Your task to perform on an android device: delete browsing data in the chrome app Image 0: 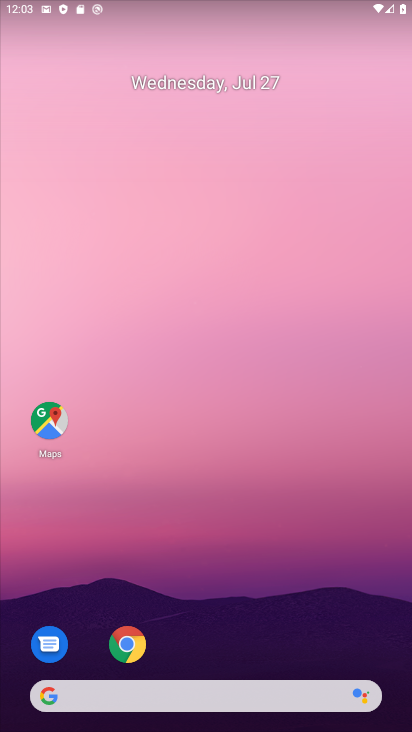
Step 0: drag from (269, 713) to (184, 155)
Your task to perform on an android device: delete browsing data in the chrome app Image 1: 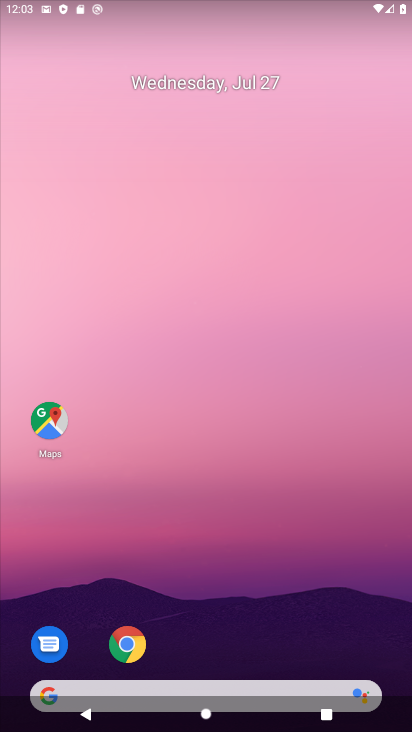
Step 1: drag from (182, 411) to (154, 122)
Your task to perform on an android device: delete browsing data in the chrome app Image 2: 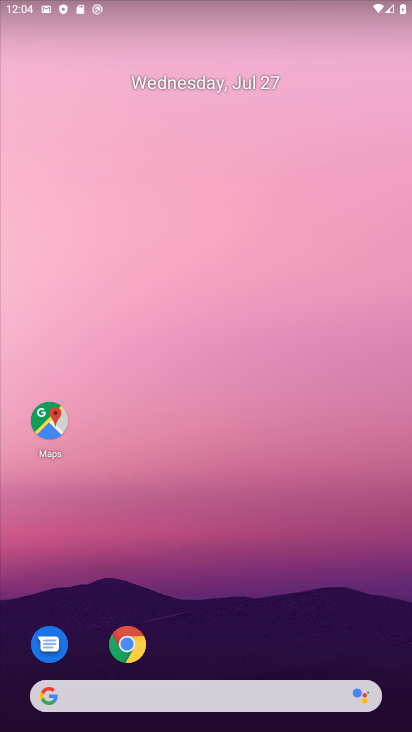
Step 2: drag from (339, 686) to (163, 186)
Your task to perform on an android device: delete browsing data in the chrome app Image 3: 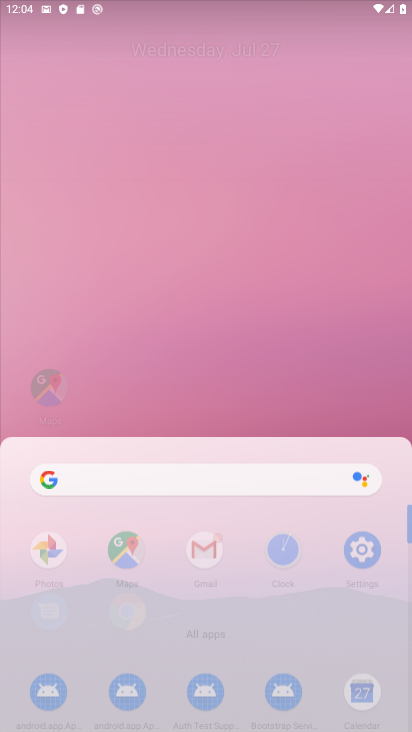
Step 3: drag from (223, 494) to (160, 70)
Your task to perform on an android device: delete browsing data in the chrome app Image 4: 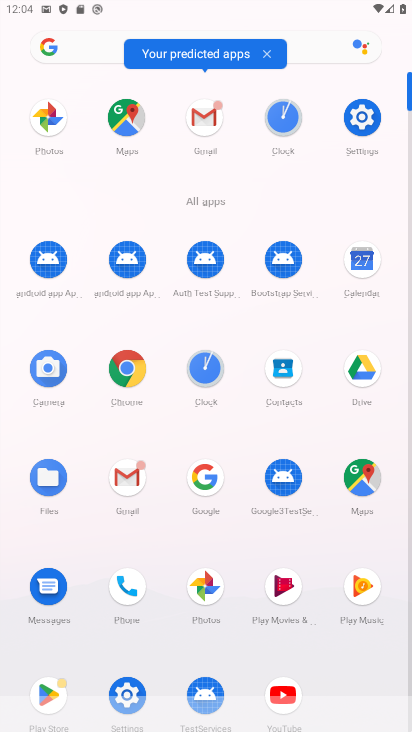
Step 4: click (127, 382)
Your task to perform on an android device: delete browsing data in the chrome app Image 5: 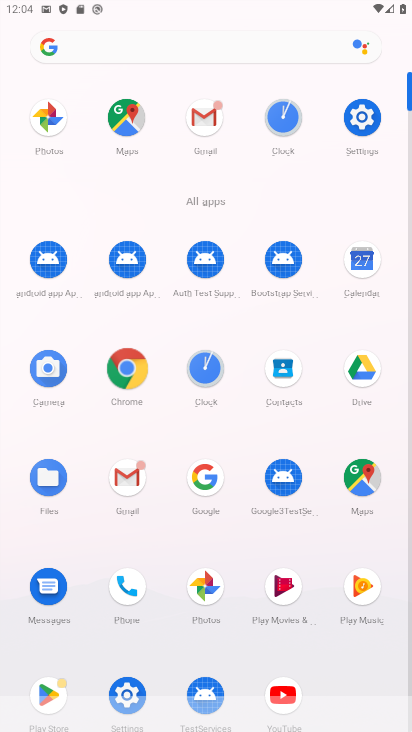
Step 5: click (125, 376)
Your task to perform on an android device: delete browsing data in the chrome app Image 6: 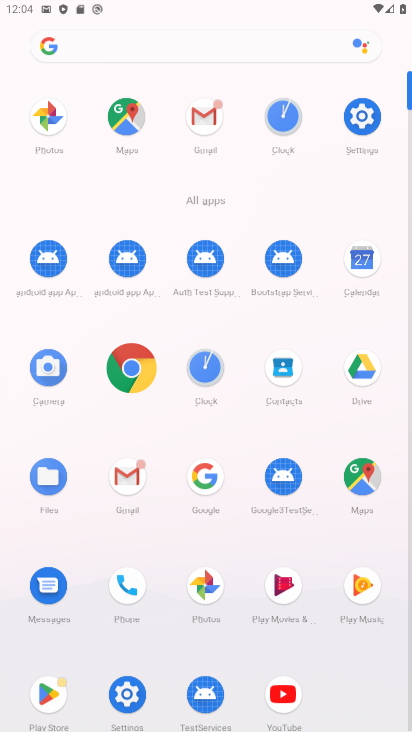
Step 6: click (124, 373)
Your task to perform on an android device: delete browsing data in the chrome app Image 7: 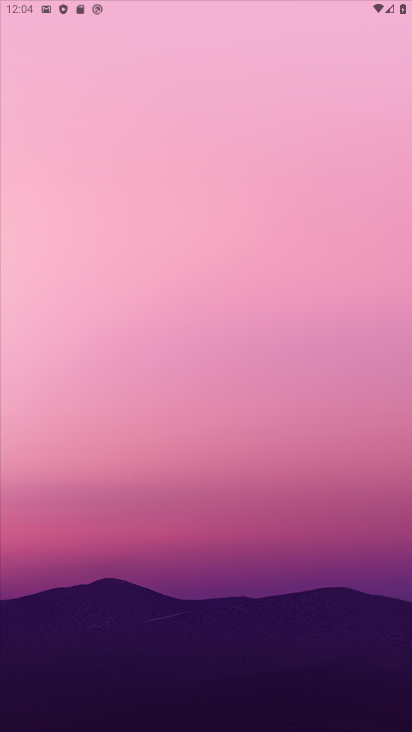
Step 7: click (128, 382)
Your task to perform on an android device: delete browsing data in the chrome app Image 8: 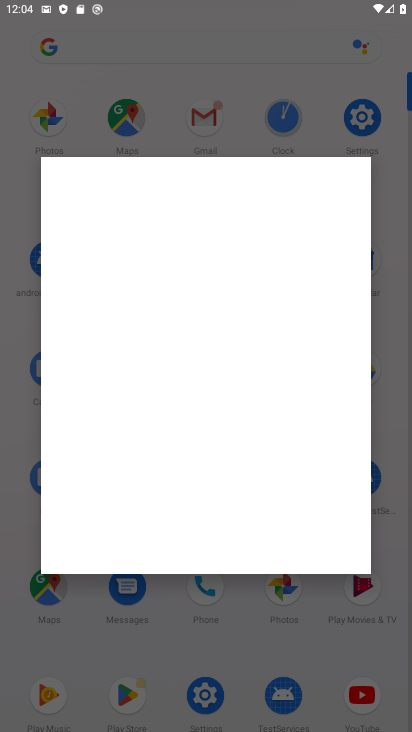
Step 8: drag from (196, 370) to (196, 156)
Your task to perform on an android device: delete browsing data in the chrome app Image 9: 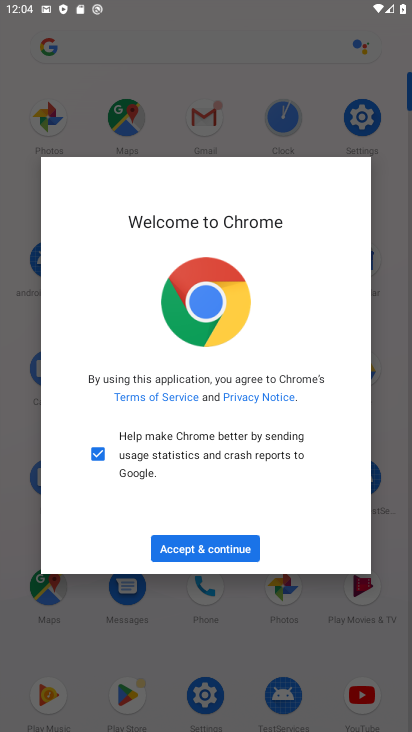
Step 9: click (208, 557)
Your task to perform on an android device: delete browsing data in the chrome app Image 10: 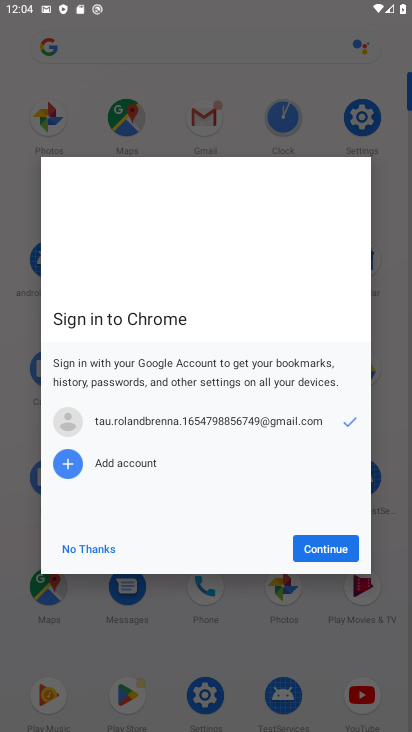
Step 10: click (209, 556)
Your task to perform on an android device: delete browsing data in the chrome app Image 11: 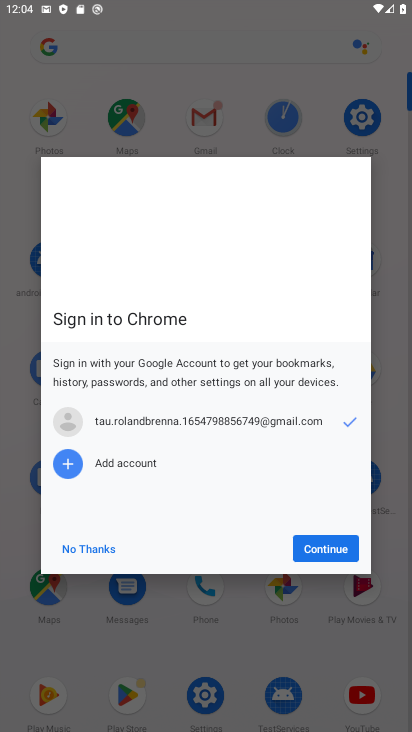
Step 11: click (229, 526)
Your task to perform on an android device: delete browsing data in the chrome app Image 12: 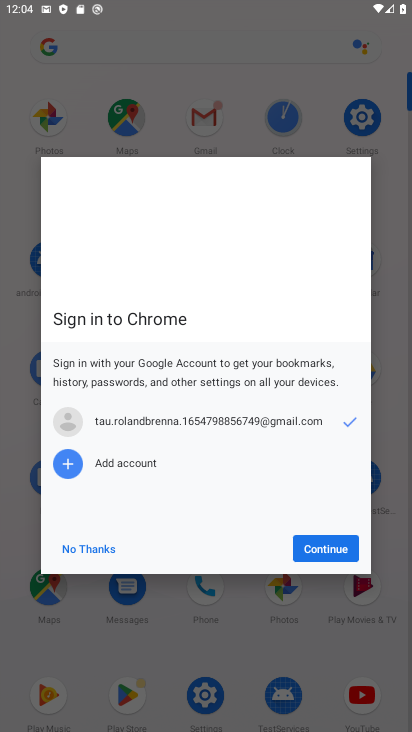
Step 12: click (82, 552)
Your task to perform on an android device: delete browsing data in the chrome app Image 13: 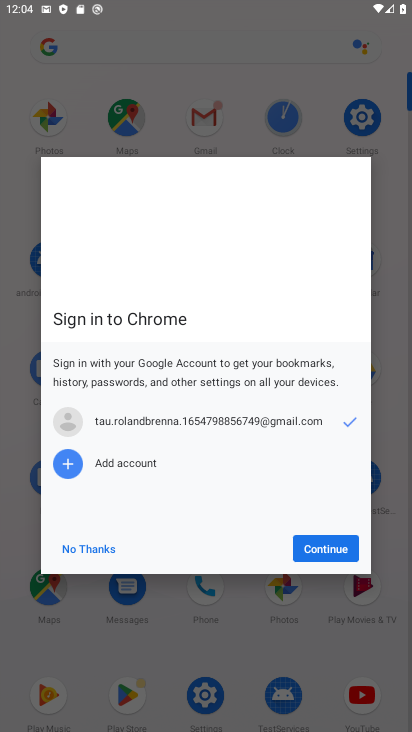
Step 13: click (83, 537)
Your task to perform on an android device: delete browsing data in the chrome app Image 14: 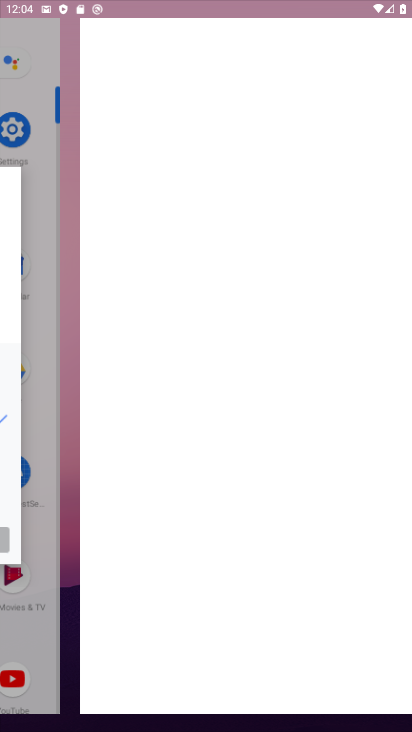
Step 14: click (78, 527)
Your task to perform on an android device: delete browsing data in the chrome app Image 15: 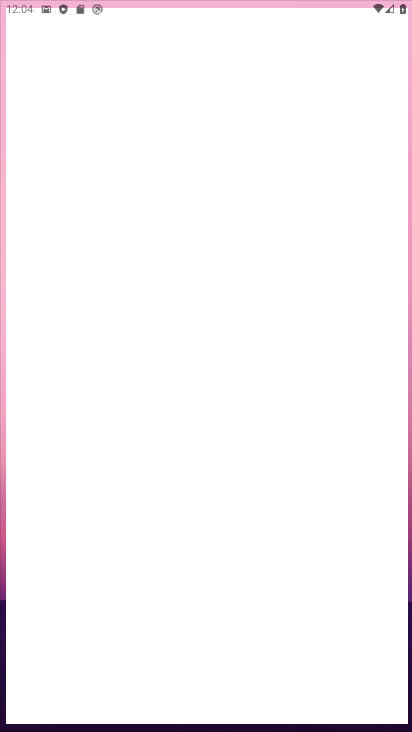
Step 15: click (78, 518)
Your task to perform on an android device: delete browsing data in the chrome app Image 16: 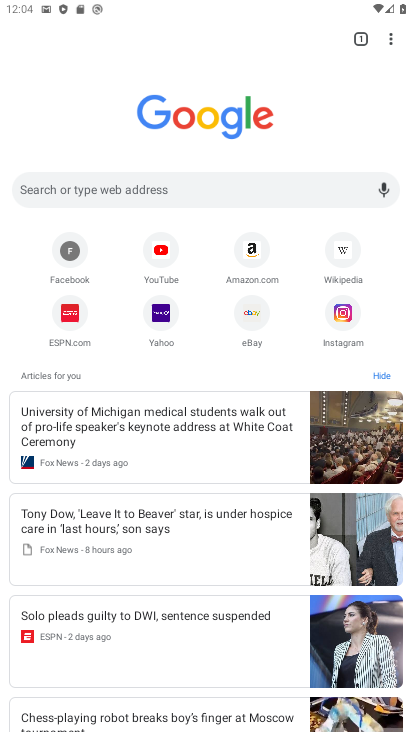
Step 16: click (390, 38)
Your task to perform on an android device: delete browsing data in the chrome app Image 17: 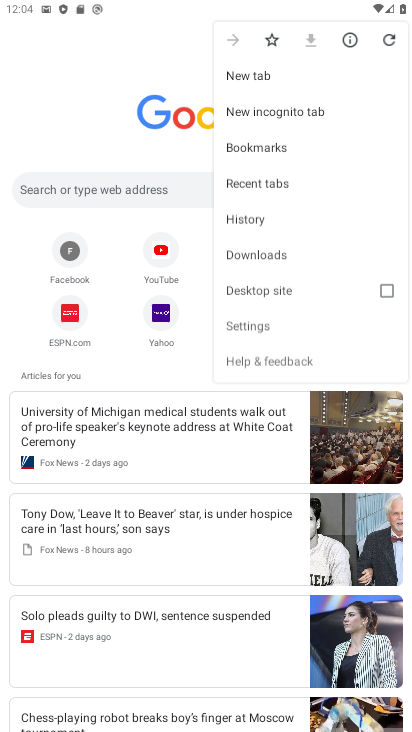
Step 17: click (390, 38)
Your task to perform on an android device: delete browsing data in the chrome app Image 18: 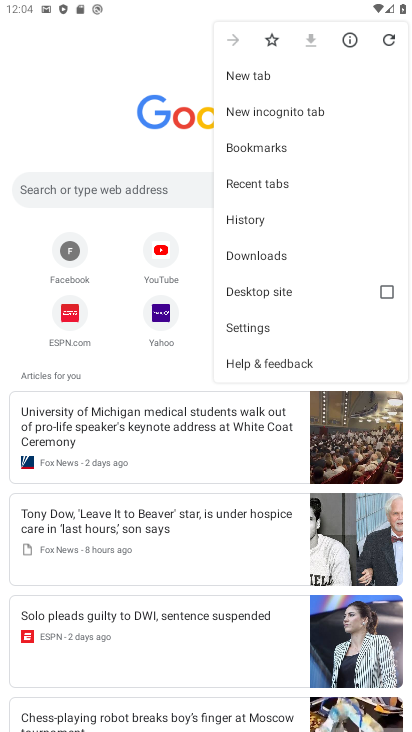
Step 18: click (390, 38)
Your task to perform on an android device: delete browsing data in the chrome app Image 19: 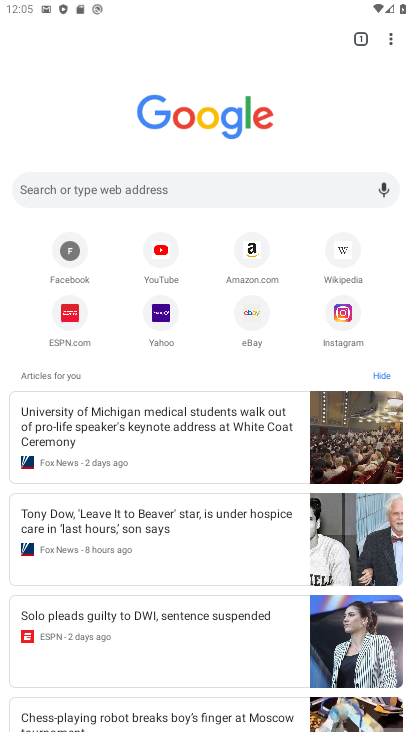
Step 19: task complete